Your task to perform on an android device: Go to battery settings Image 0: 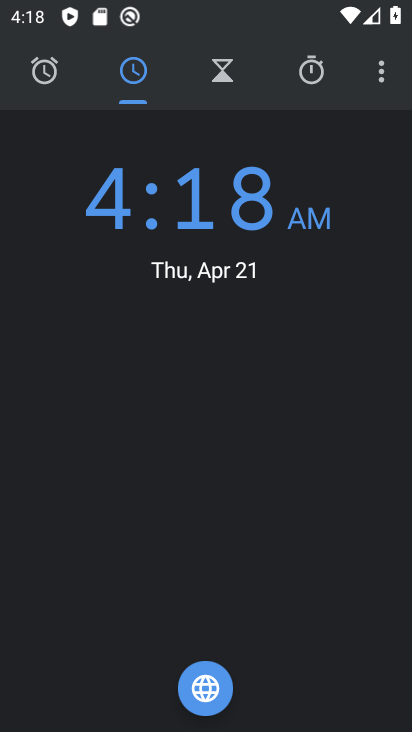
Step 0: press home button
Your task to perform on an android device: Go to battery settings Image 1: 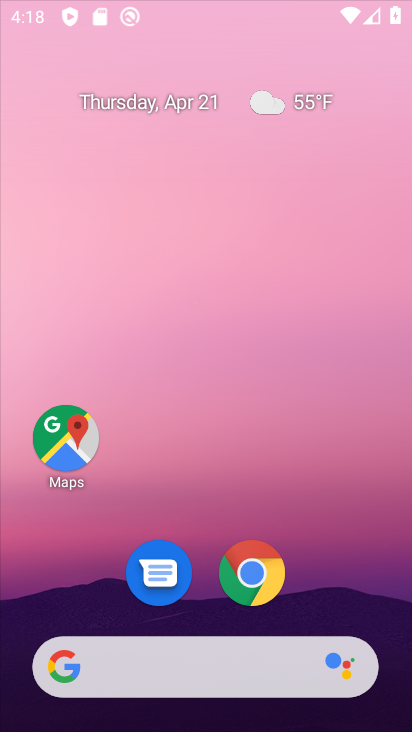
Step 1: click (232, 44)
Your task to perform on an android device: Go to battery settings Image 2: 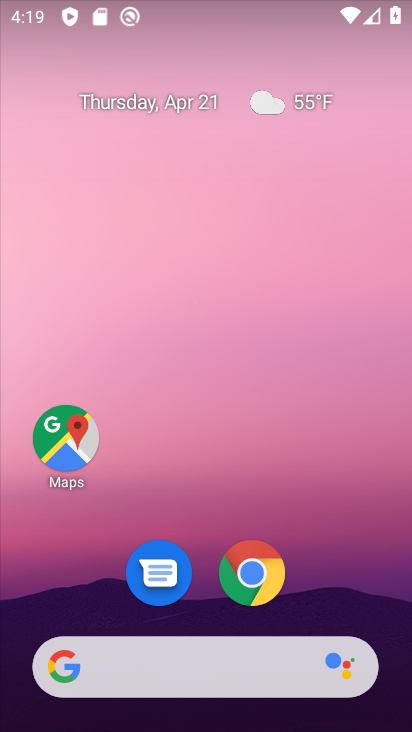
Step 2: drag from (387, 603) to (281, 24)
Your task to perform on an android device: Go to battery settings Image 3: 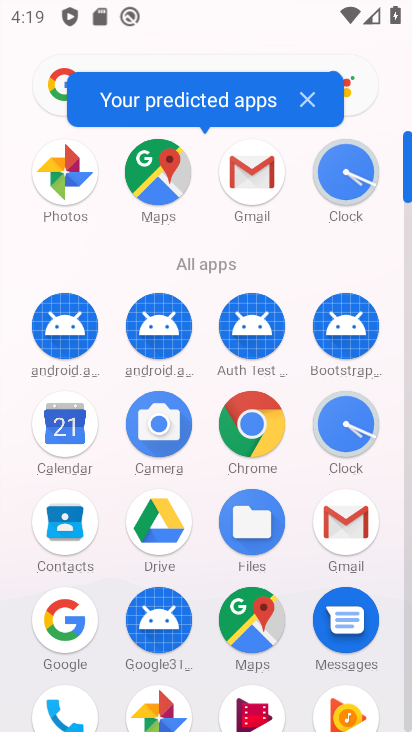
Step 3: click (406, 688)
Your task to perform on an android device: Go to battery settings Image 4: 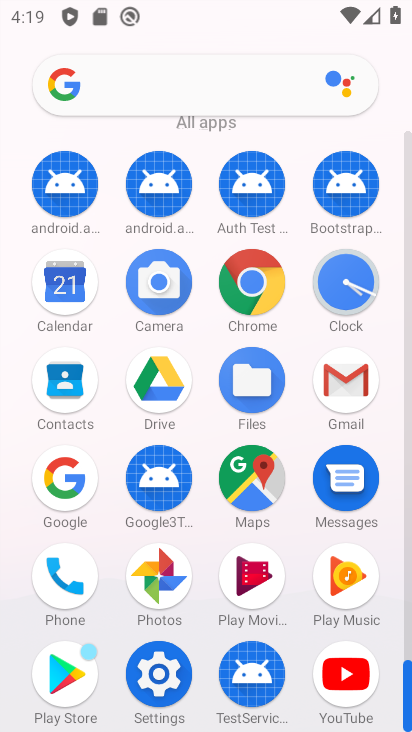
Step 4: click (165, 668)
Your task to perform on an android device: Go to battery settings Image 5: 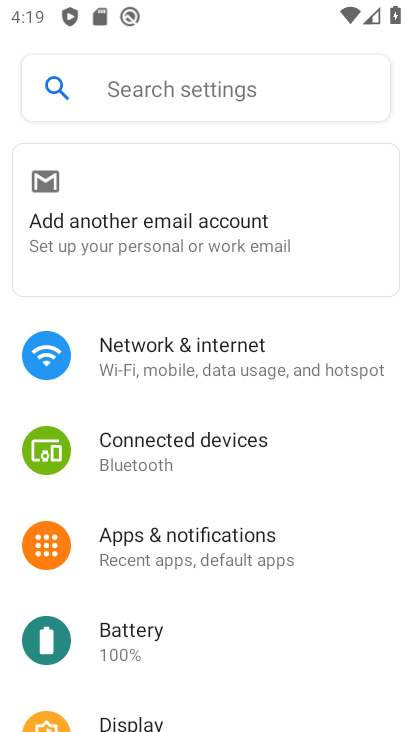
Step 5: click (258, 645)
Your task to perform on an android device: Go to battery settings Image 6: 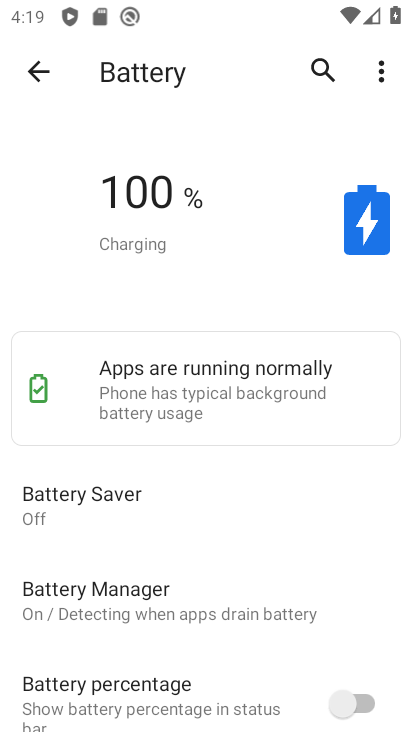
Step 6: task complete